Your task to perform on an android device: turn on location history Image 0: 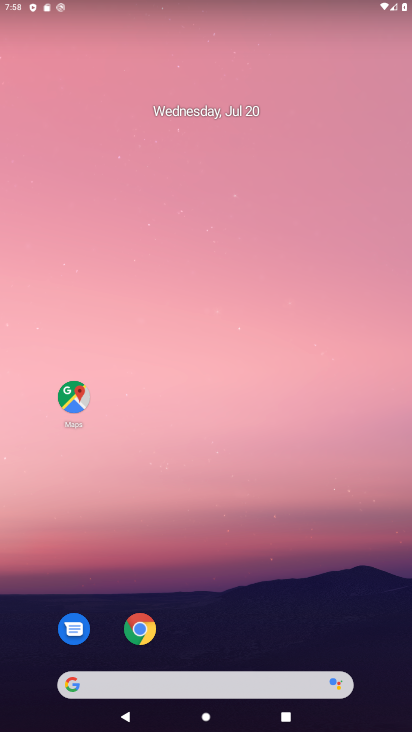
Step 0: drag from (282, 632) to (265, 174)
Your task to perform on an android device: turn on location history Image 1: 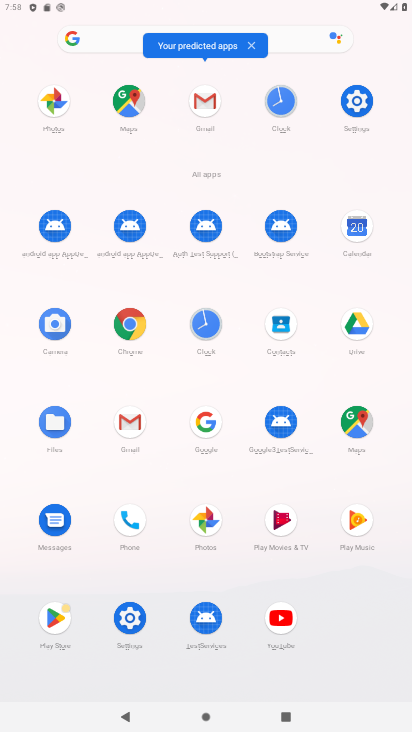
Step 1: click (350, 100)
Your task to perform on an android device: turn on location history Image 2: 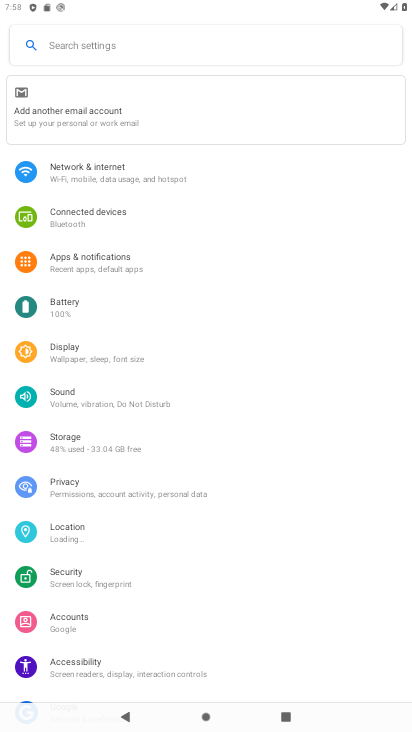
Step 2: click (92, 533)
Your task to perform on an android device: turn on location history Image 3: 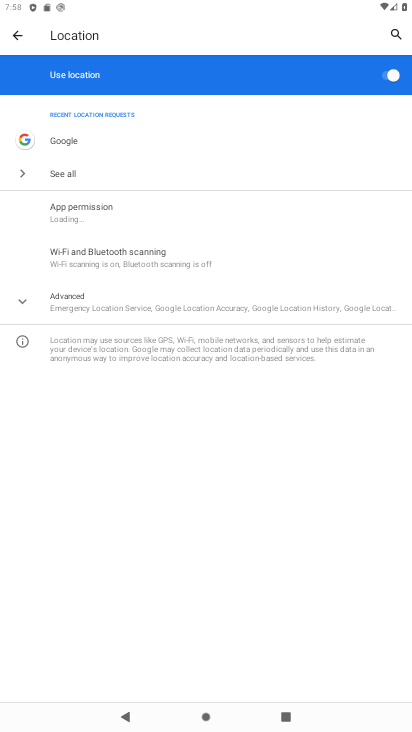
Step 3: click (166, 304)
Your task to perform on an android device: turn on location history Image 4: 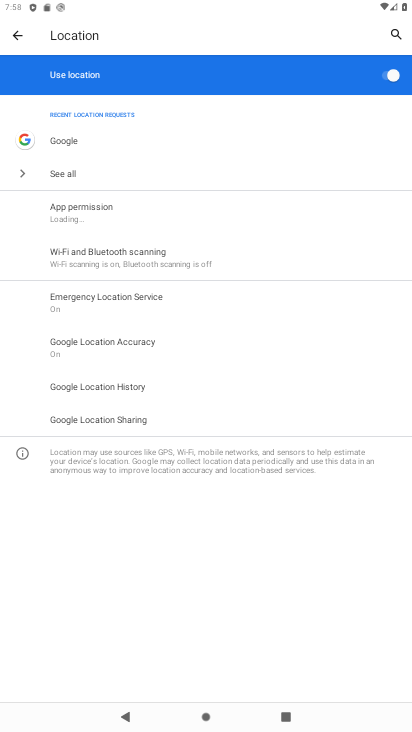
Step 4: click (138, 385)
Your task to perform on an android device: turn on location history Image 5: 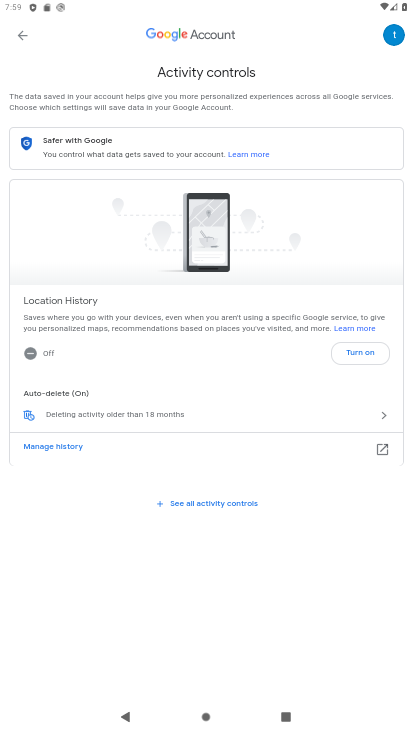
Step 5: click (376, 352)
Your task to perform on an android device: turn on location history Image 6: 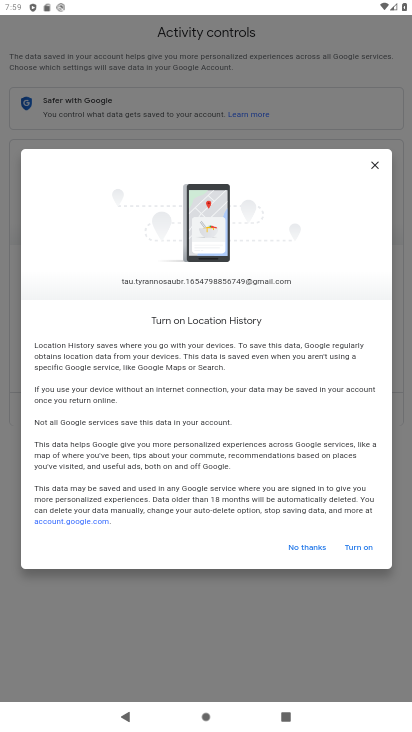
Step 6: click (359, 542)
Your task to perform on an android device: turn on location history Image 7: 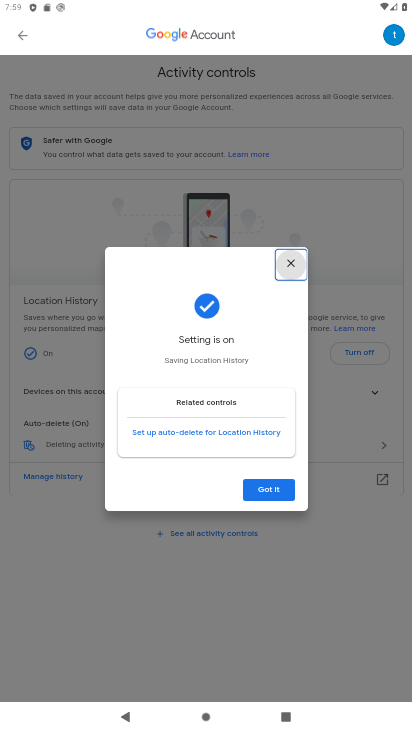
Step 7: task complete